Your task to perform on an android device: Open maps Image 0: 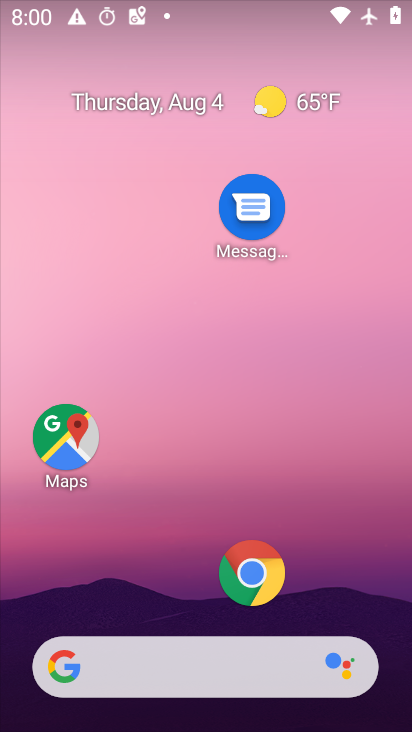
Step 0: press home button
Your task to perform on an android device: Open maps Image 1: 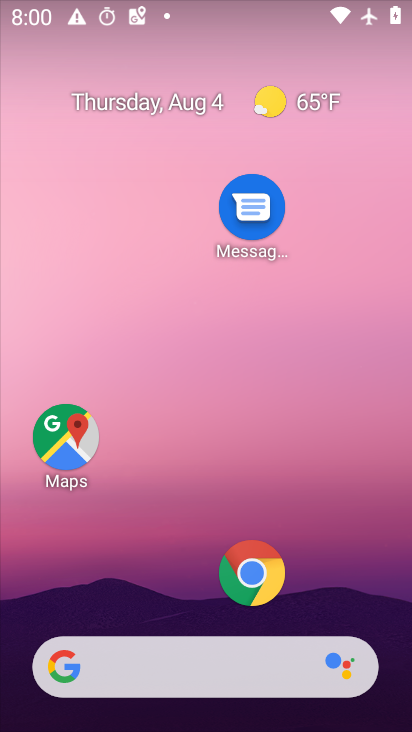
Step 1: click (67, 452)
Your task to perform on an android device: Open maps Image 2: 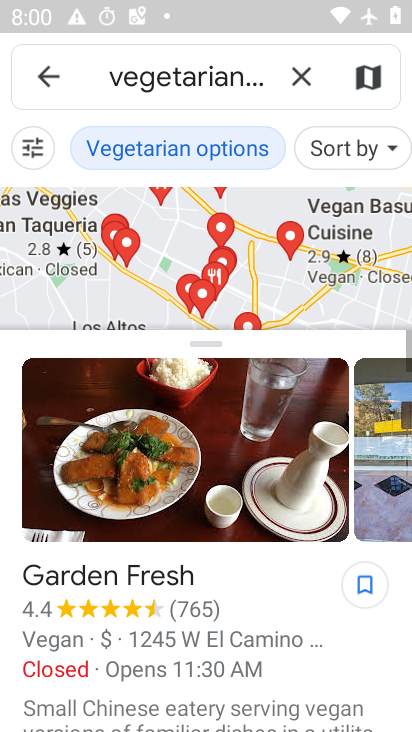
Step 2: click (54, 83)
Your task to perform on an android device: Open maps Image 3: 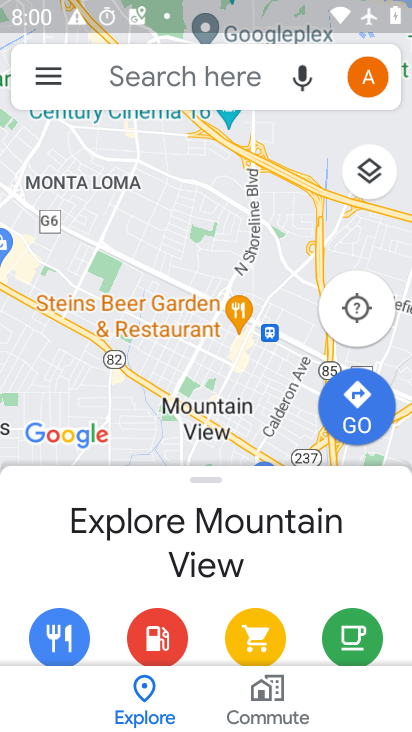
Step 3: task complete